Your task to perform on an android device: change the clock display to show seconds Image 0: 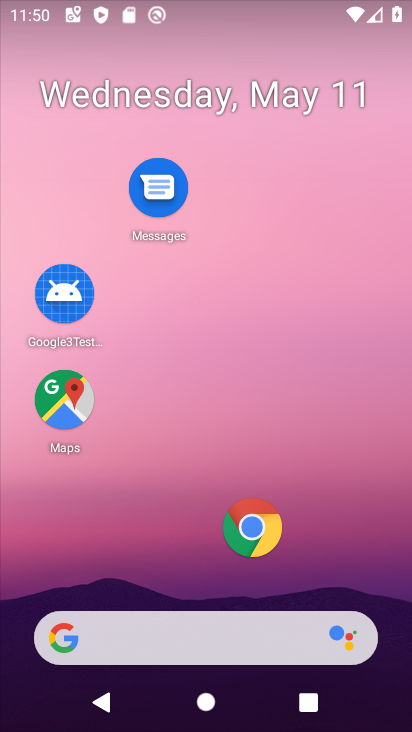
Step 0: drag from (275, 594) to (181, 116)
Your task to perform on an android device: change the clock display to show seconds Image 1: 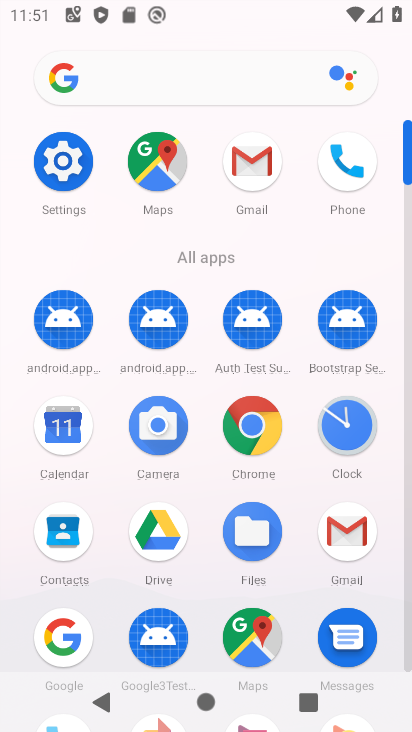
Step 1: click (338, 435)
Your task to perform on an android device: change the clock display to show seconds Image 2: 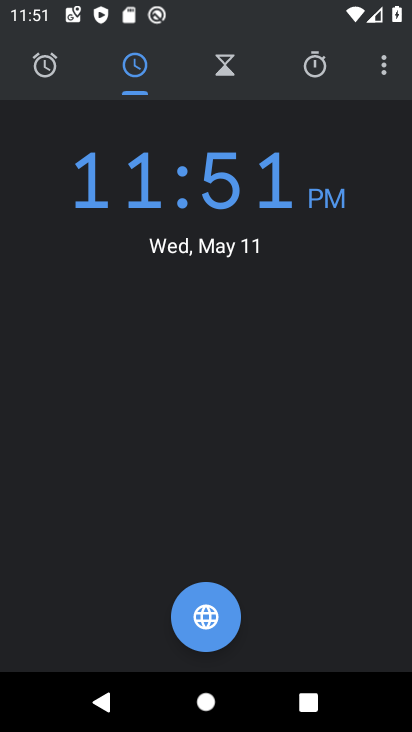
Step 2: click (382, 86)
Your task to perform on an android device: change the clock display to show seconds Image 3: 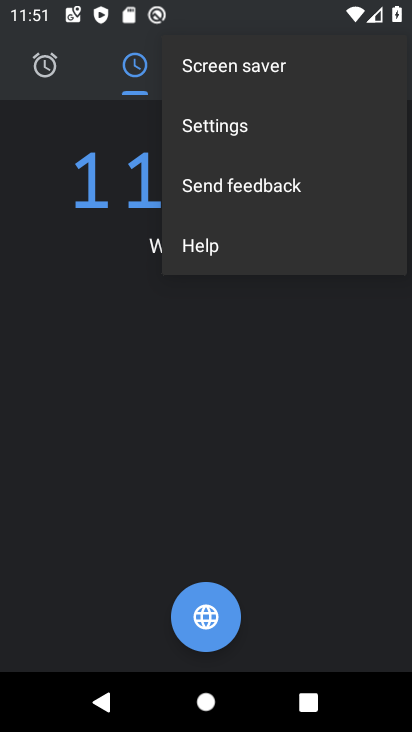
Step 3: click (232, 125)
Your task to perform on an android device: change the clock display to show seconds Image 4: 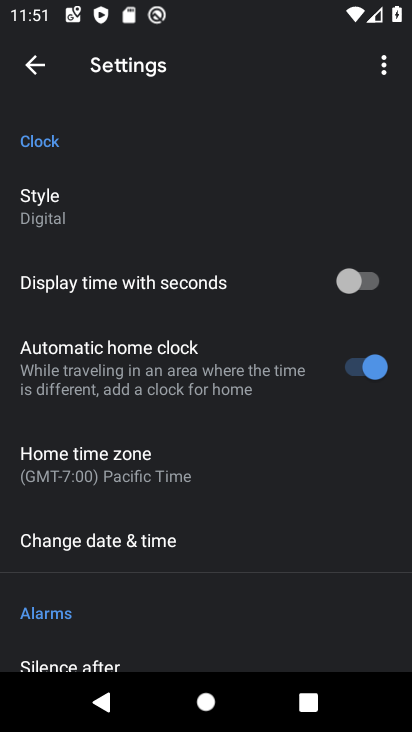
Step 4: click (368, 270)
Your task to perform on an android device: change the clock display to show seconds Image 5: 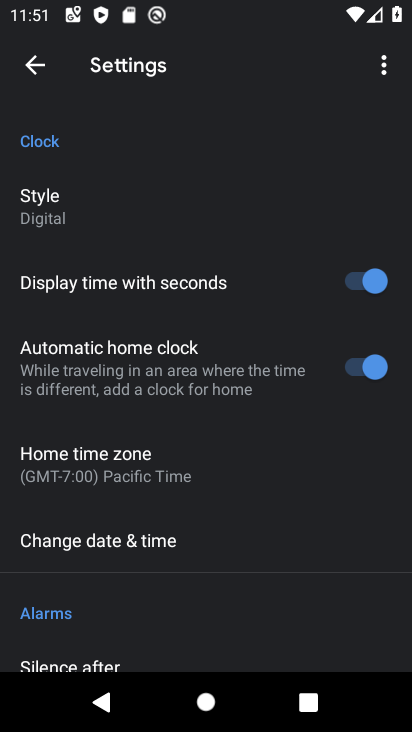
Step 5: task complete